Your task to perform on an android device: open a bookmark in the chrome app Image 0: 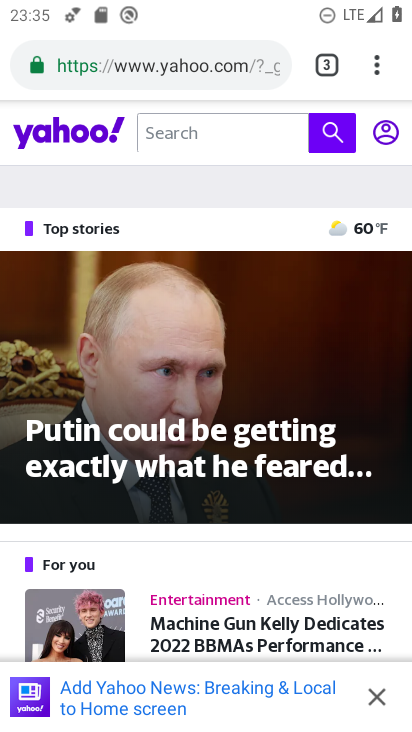
Step 0: drag from (378, 62) to (192, 245)
Your task to perform on an android device: open a bookmark in the chrome app Image 1: 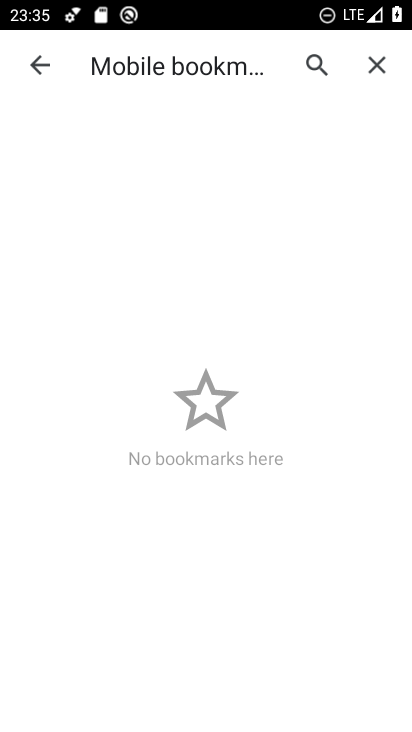
Step 1: task complete